Your task to perform on an android device: change notifications settings Image 0: 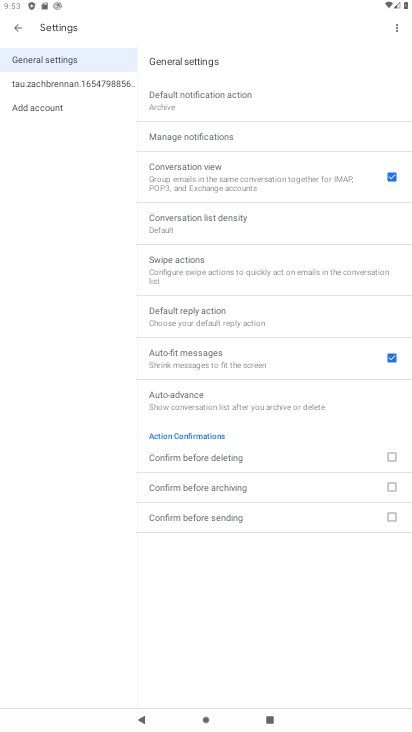
Step 0: press home button
Your task to perform on an android device: change notifications settings Image 1: 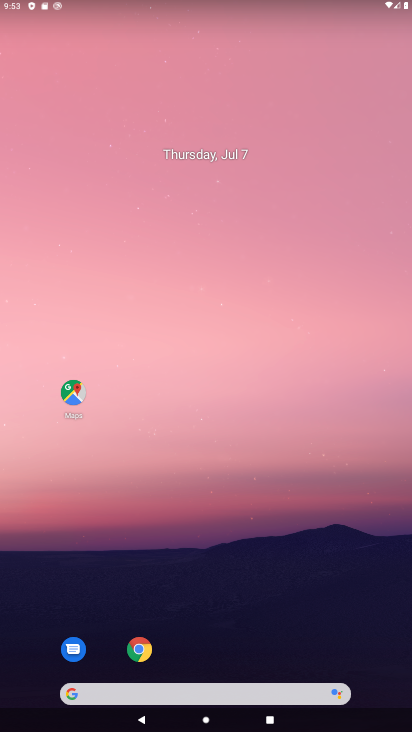
Step 1: drag from (303, 585) to (231, 109)
Your task to perform on an android device: change notifications settings Image 2: 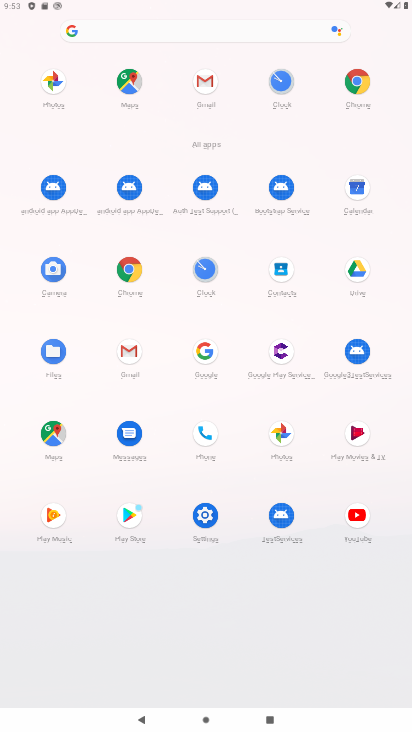
Step 2: click (198, 512)
Your task to perform on an android device: change notifications settings Image 3: 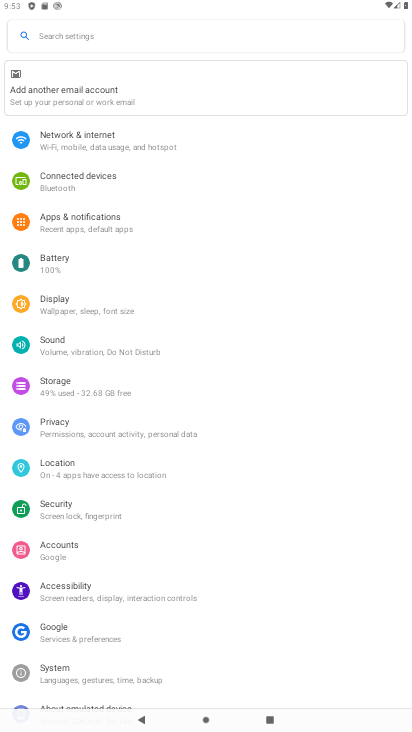
Step 3: click (92, 223)
Your task to perform on an android device: change notifications settings Image 4: 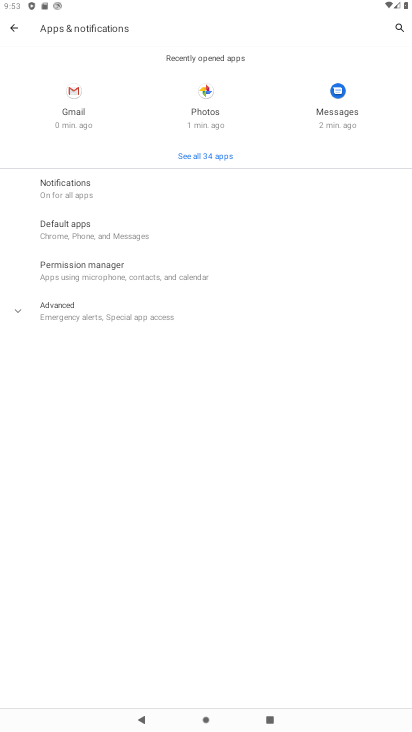
Step 4: click (121, 175)
Your task to perform on an android device: change notifications settings Image 5: 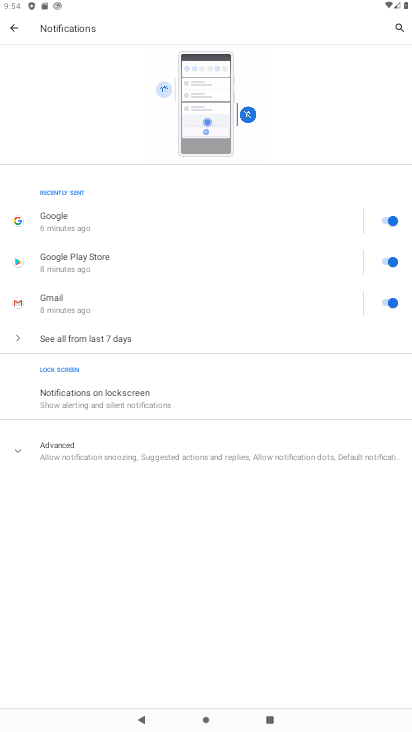
Step 5: click (210, 335)
Your task to perform on an android device: change notifications settings Image 6: 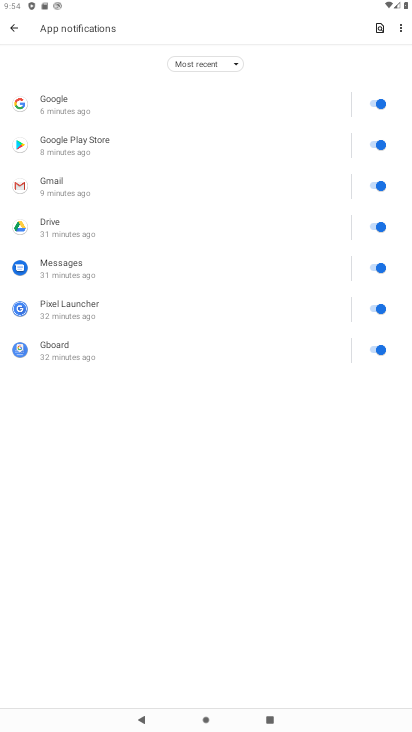
Step 6: click (380, 109)
Your task to perform on an android device: change notifications settings Image 7: 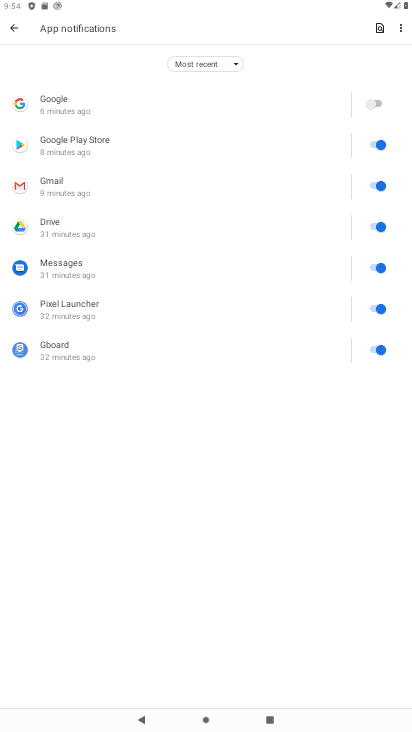
Step 7: click (380, 153)
Your task to perform on an android device: change notifications settings Image 8: 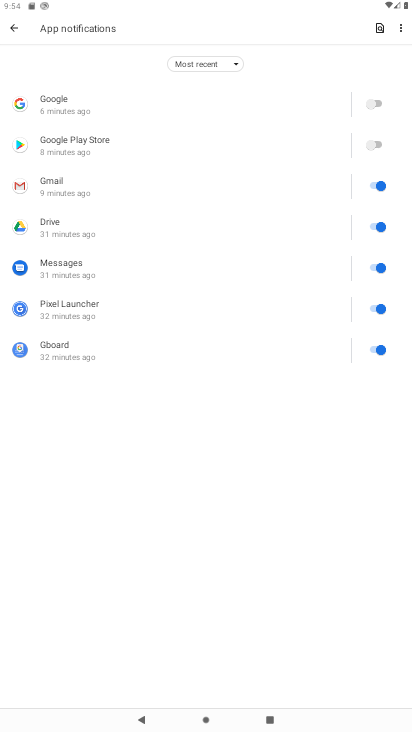
Step 8: click (380, 180)
Your task to perform on an android device: change notifications settings Image 9: 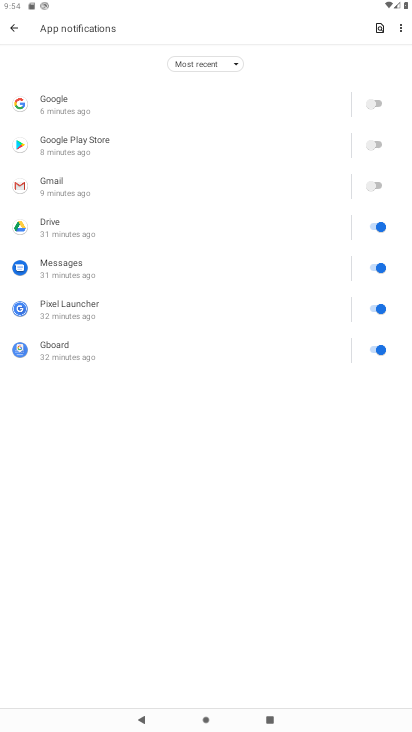
Step 9: click (380, 206)
Your task to perform on an android device: change notifications settings Image 10: 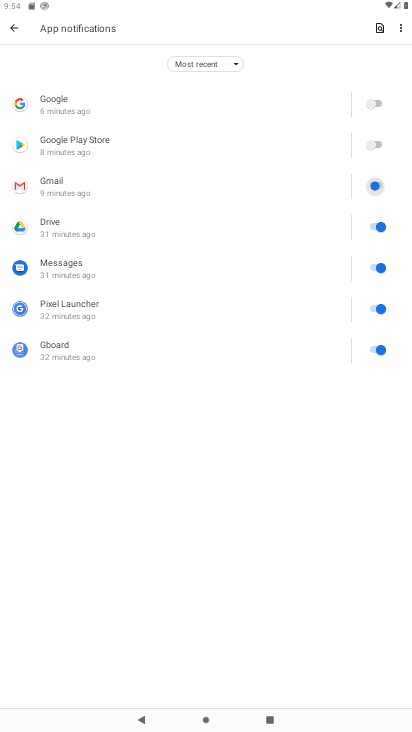
Step 10: click (380, 206)
Your task to perform on an android device: change notifications settings Image 11: 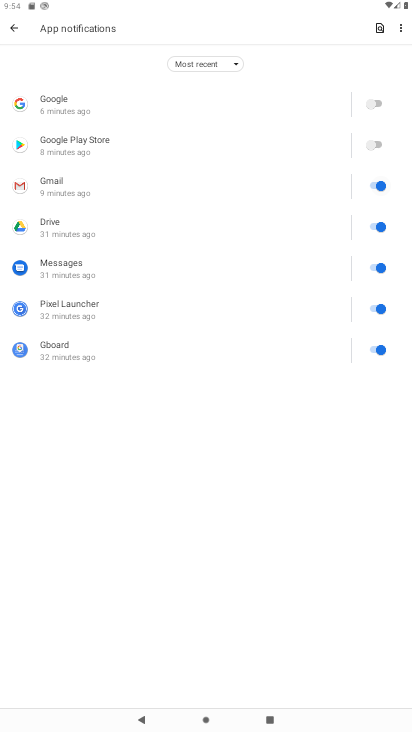
Step 11: click (380, 206)
Your task to perform on an android device: change notifications settings Image 12: 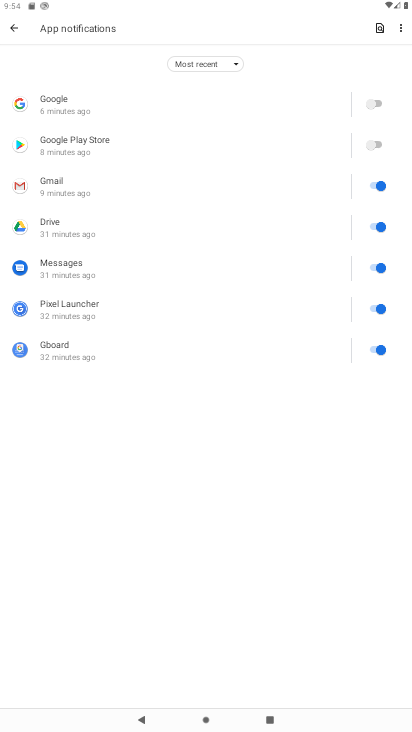
Step 12: click (380, 206)
Your task to perform on an android device: change notifications settings Image 13: 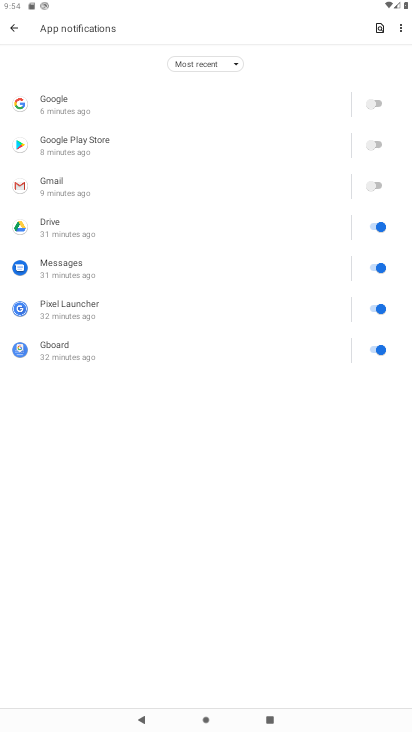
Step 13: click (380, 228)
Your task to perform on an android device: change notifications settings Image 14: 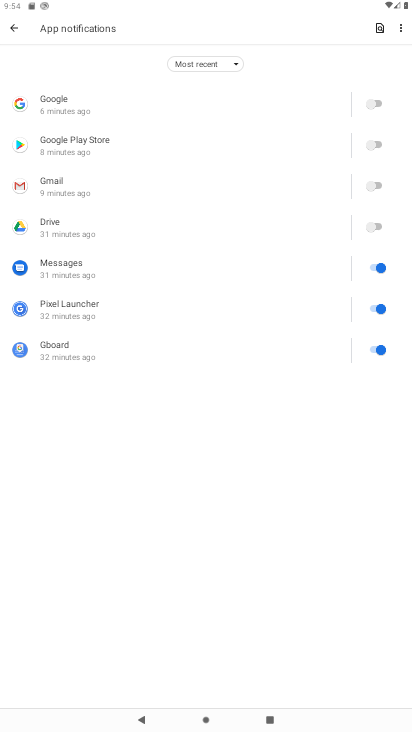
Step 14: click (380, 256)
Your task to perform on an android device: change notifications settings Image 15: 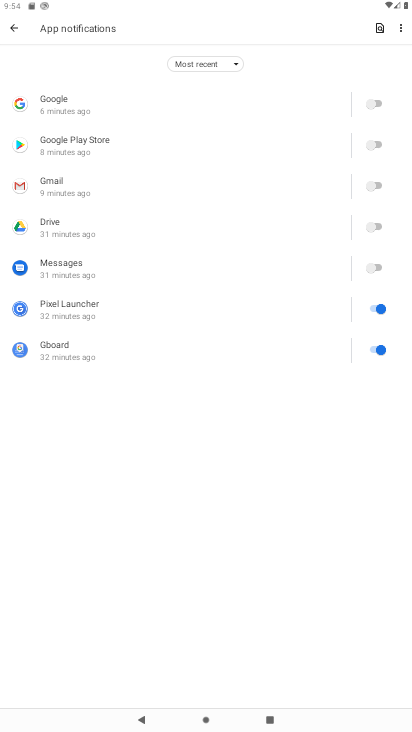
Step 15: click (380, 307)
Your task to perform on an android device: change notifications settings Image 16: 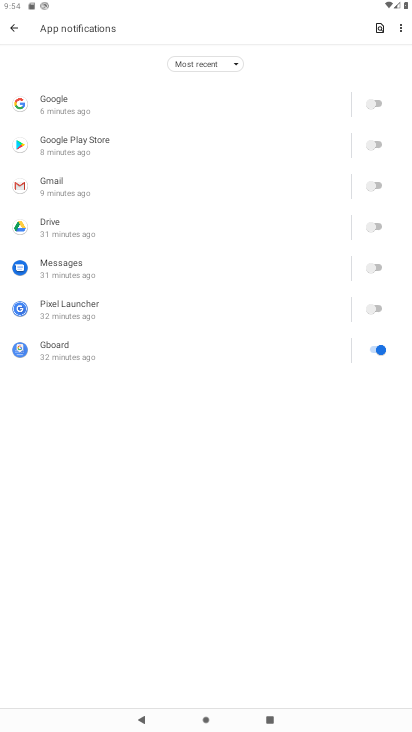
Step 16: click (383, 350)
Your task to perform on an android device: change notifications settings Image 17: 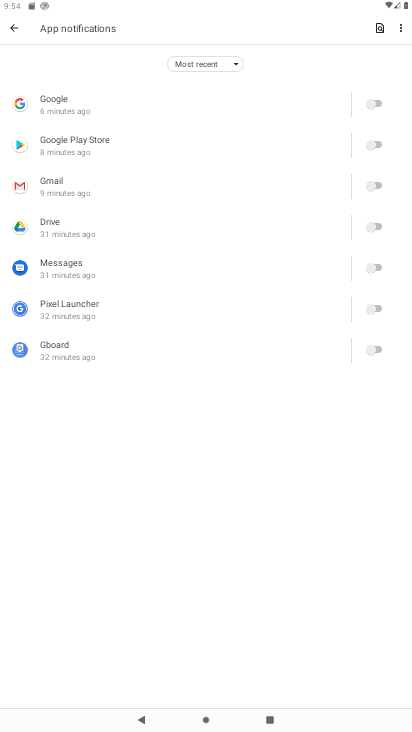
Step 17: click (10, 24)
Your task to perform on an android device: change notifications settings Image 18: 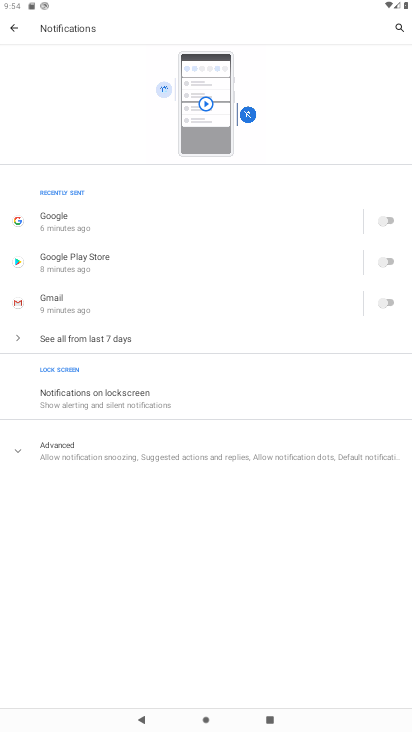
Step 18: click (100, 401)
Your task to perform on an android device: change notifications settings Image 19: 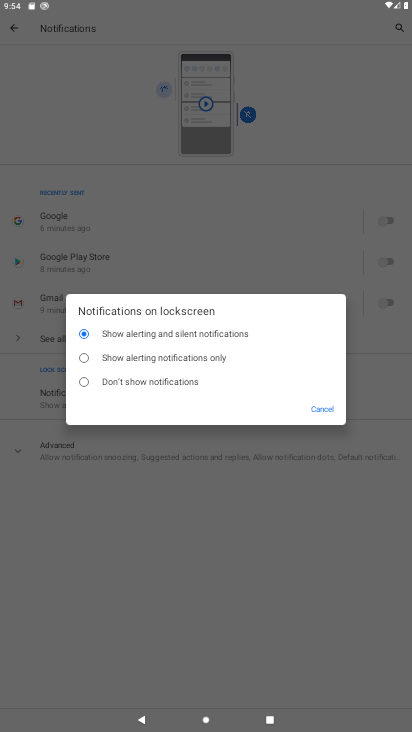
Step 19: click (146, 360)
Your task to perform on an android device: change notifications settings Image 20: 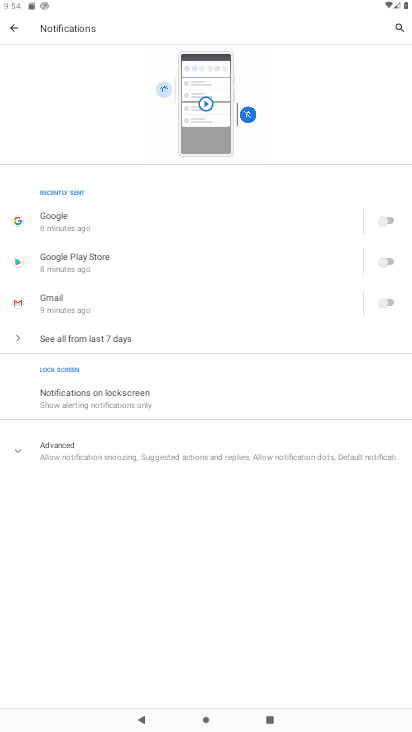
Step 20: click (146, 360)
Your task to perform on an android device: change notifications settings Image 21: 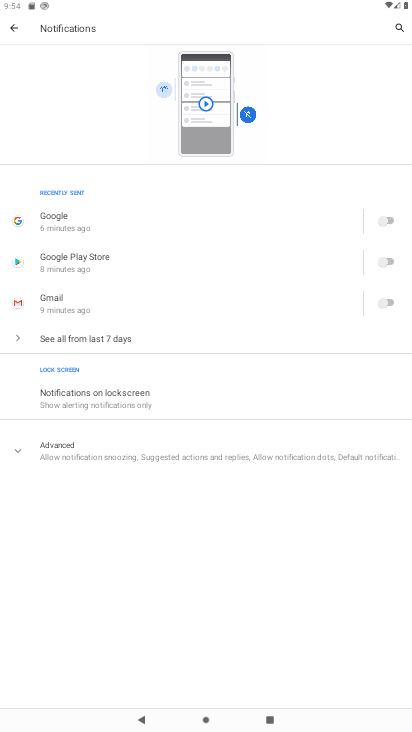
Step 21: click (110, 454)
Your task to perform on an android device: change notifications settings Image 22: 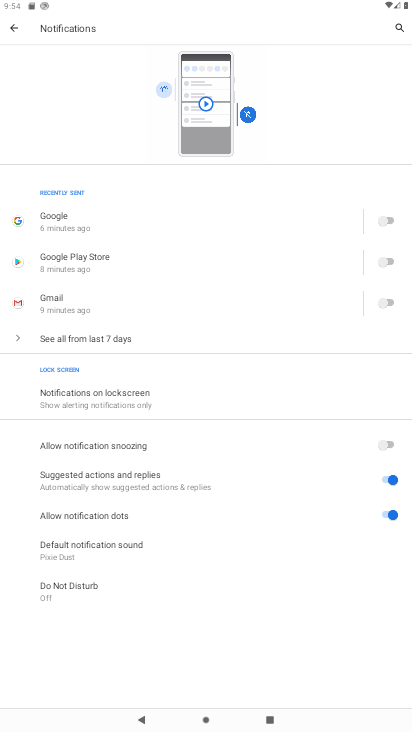
Step 22: click (386, 443)
Your task to perform on an android device: change notifications settings Image 23: 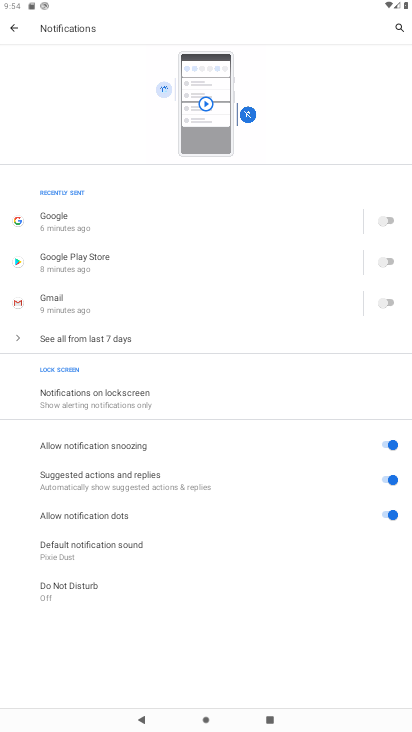
Step 23: click (386, 476)
Your task to perform on an android device: change notifications settings Image 24: 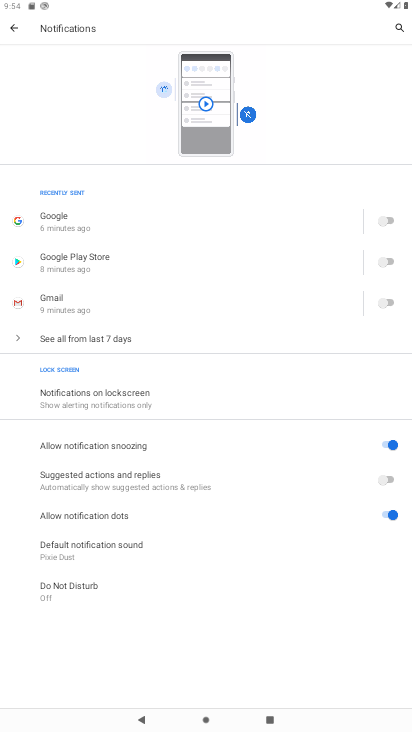
Step 24: click (389, 516)
Your task to perform on an android device: change notifications settings Image 25: 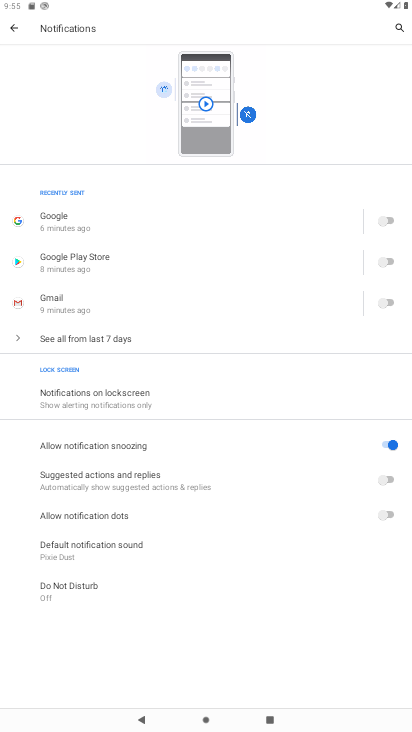
Step 25: task complete